Your task to perform on an android device: turn on airplane mode Image 0: 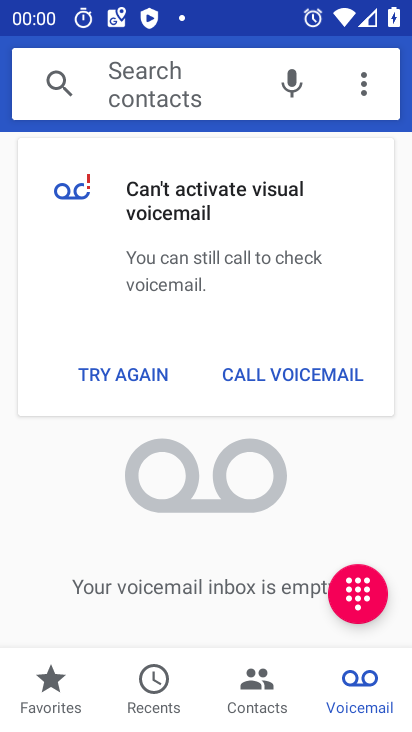
Step 0: press home button
Your task to perform on an android device: turn on airplane mode Image 1: 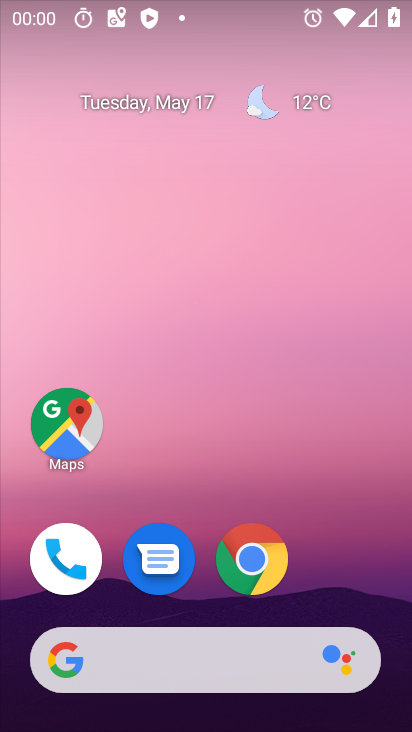
Step 1: drag from (265, 18) to (299, 536)
Your task to perform on an android device: turn on airplane mode Image 2: 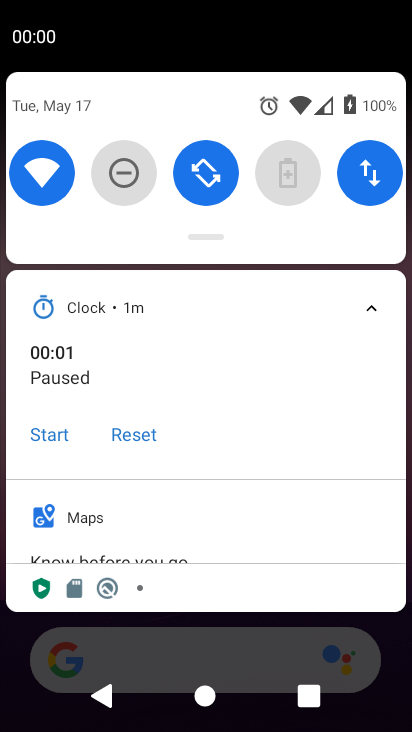
Step 2: drag from (343, 222) to (309, 616)
Your task to perform on an android device: turn on airplane mode Image 3: 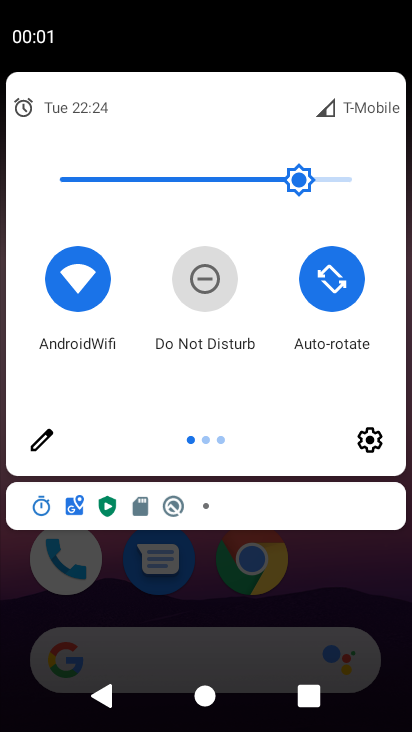
Step 3: drag from (369, 296) to (29, 314)
Your task to perform on an android device: turn on airplane mode Image 4: 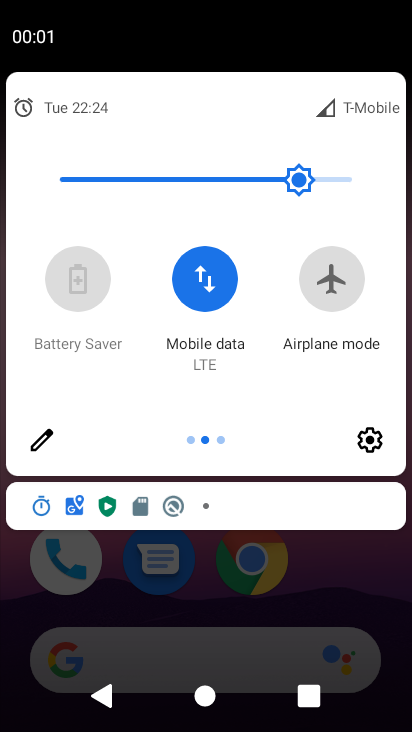
Step 4: click (337, 292)
Your task to perform on an android device: turn on airplane mode Image 5: 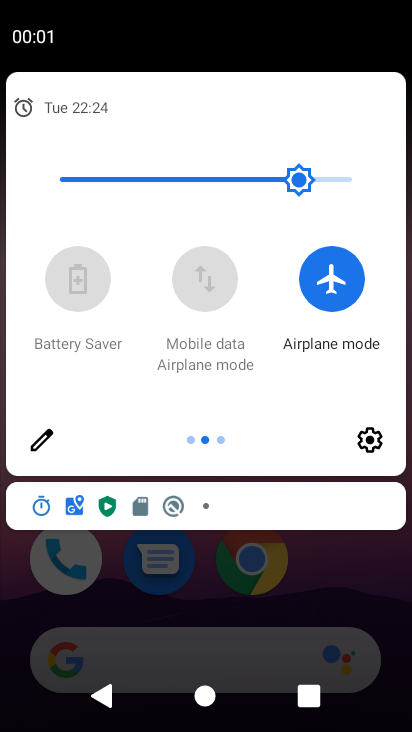
Step 5: task complete